Your task to perform on an android device: Open privacy settings Image 0: 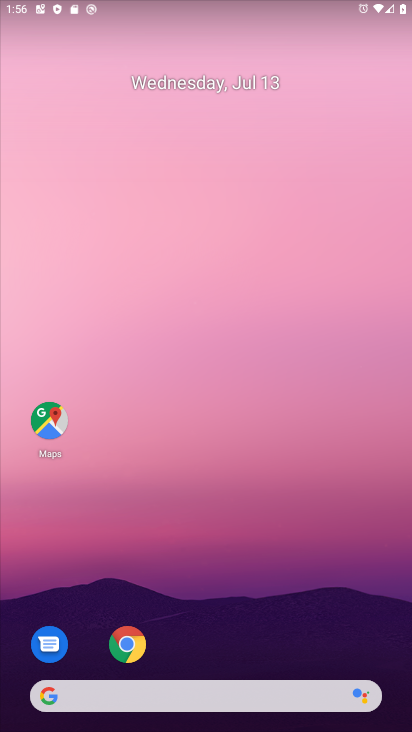
Step 0: drag from (202, 684) to (78, 63)
Your task to perform on an android device: Open privacy settings Image 1: 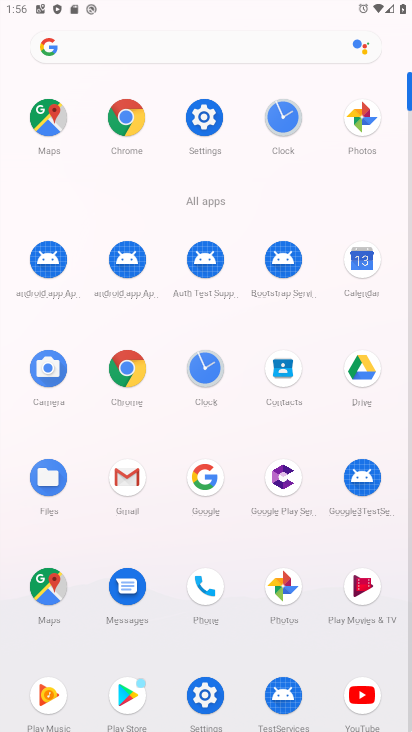
Step 1: click (195, 113)
Your task to perform on an android device: Open privacy settings Image 2: 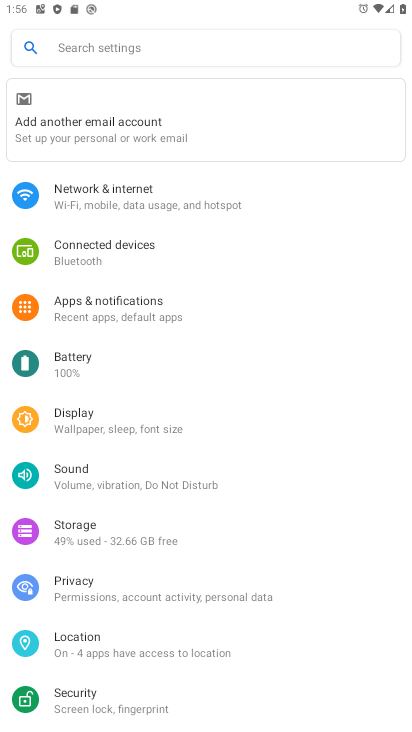
Step 2: click (68, 582)
Your task to perform on an android device: Open privacy settings Image 3: 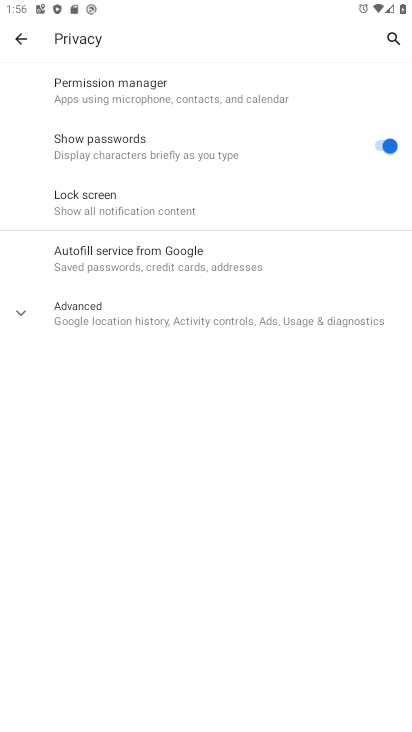
Step 3: click (103, 294)
Your task to perform on an android device: Open privacy settings Image 4: 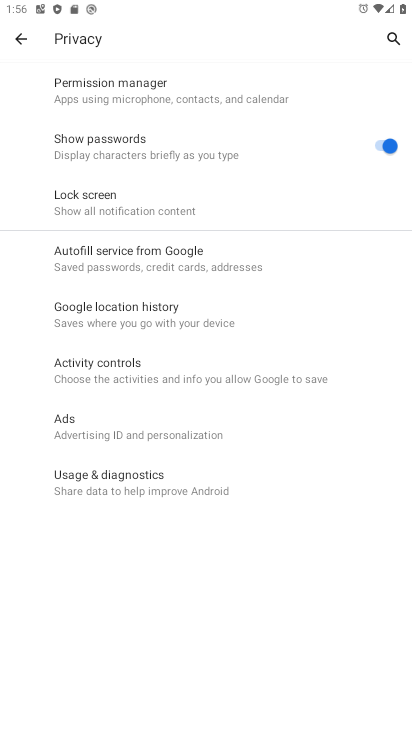
Step 4: task complete